Your task to perform on an android device: open the mobile data screen to see how much data has been used Image 0: 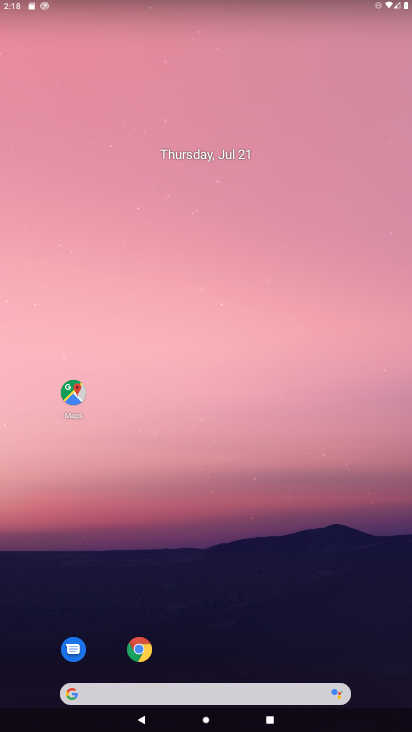
Step 0: drag from (341, 563) to (370, 9)
Your task to perform on an android device: open the mobile data screen to see how much data has been used Image 1: 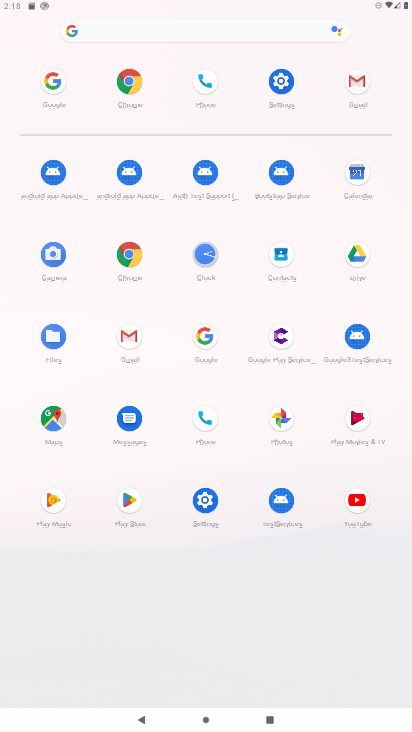
Step 1: click (273, 58)
Your task to perform on an android device: open the mobile data screen to see how much data has been used Image 2: 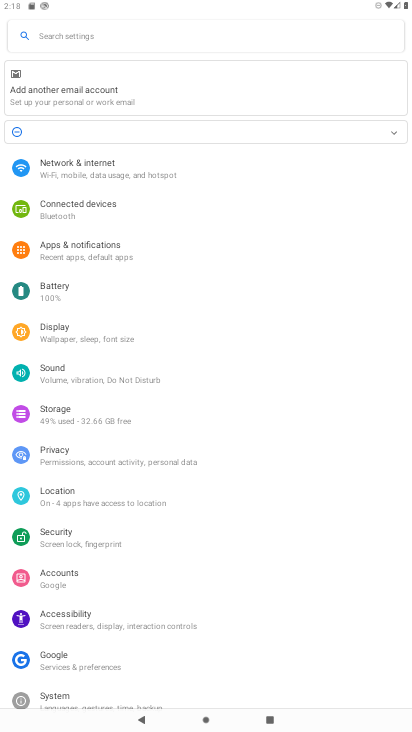
Step 2: click (49, 163)
Your task to perform on an android device: open the mobile data screen to see how much data has been used Image 3: 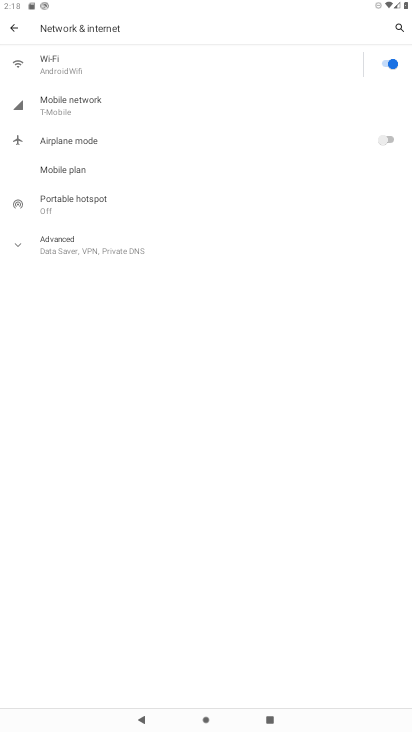
Step 3: click (88, 97)
Your task to perform on an android device: open the mobile data screen to see how much data has been used Image 4: 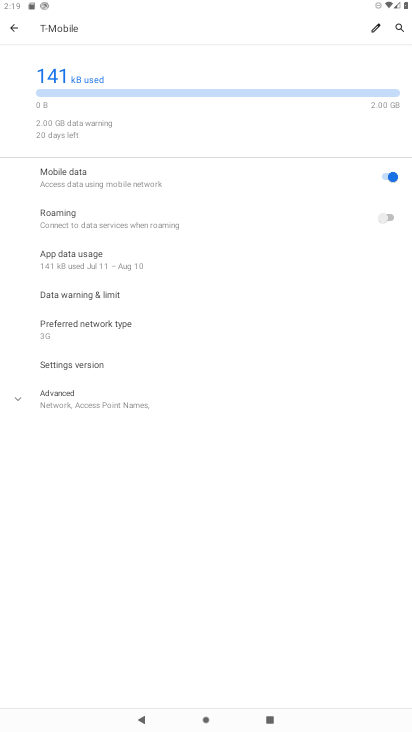
Step 4: task complete